Your task to perform on an android device: toggle notification dots Image 0: 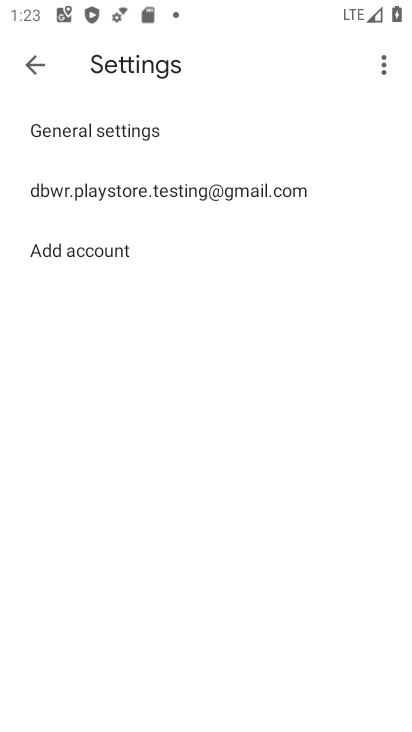
Step 0: press home button
Your task to perform on an android device: toggle notification dots Image 1: 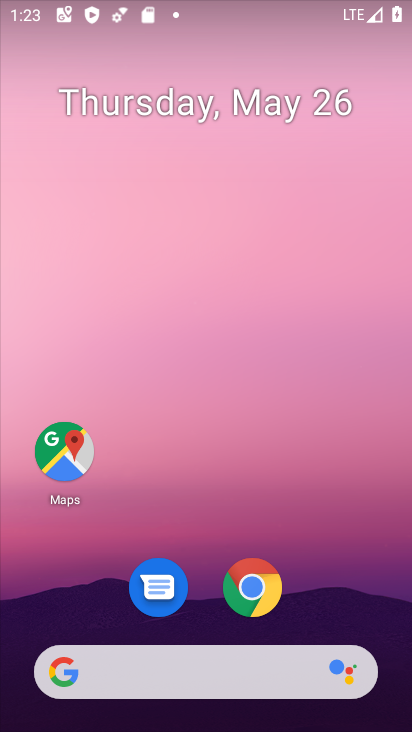
Step 1: drag from (355, 592) to (355, 441)
Your task to perform on an android device: toggle notification dots Image 2: 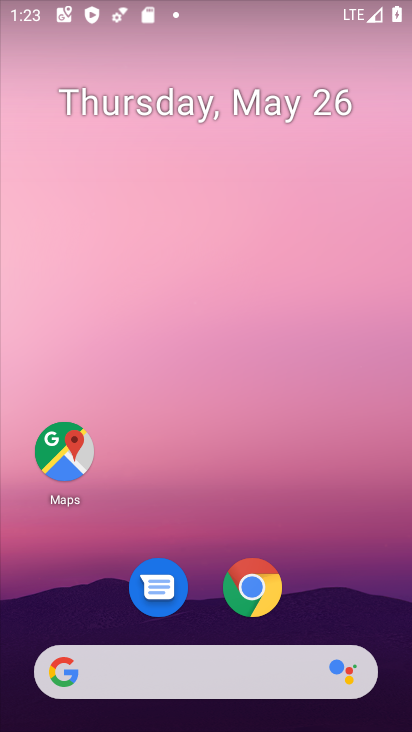
Step 2: drag from (354, 584) to (379, 185)
Your task to perform on an android device: toggle notification dots Image 3: 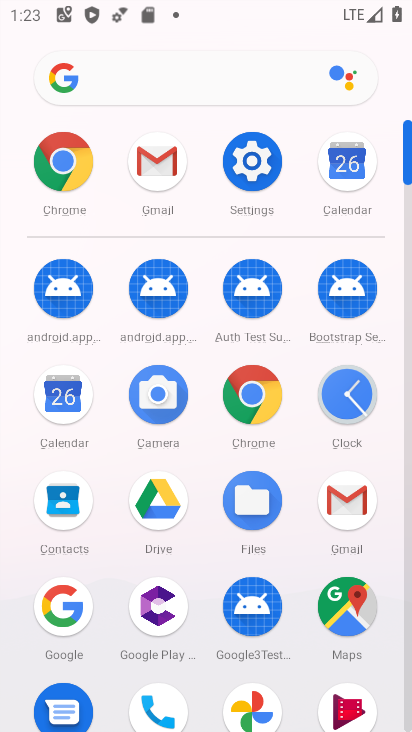
Step 3: click (258, 170)
Your task to perform on an android device: toggle notification dots Image 4: 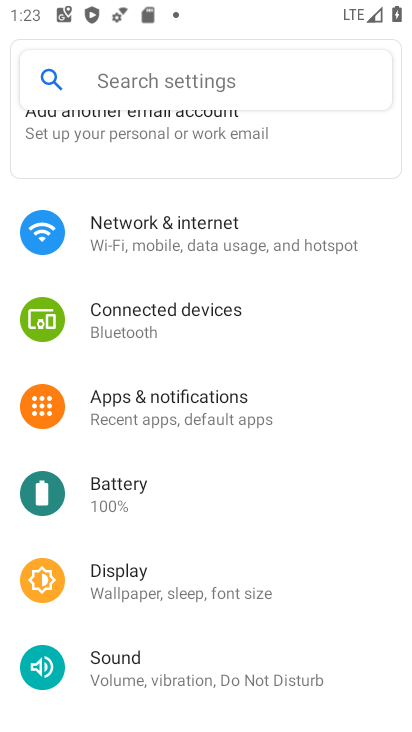
Step 4: drag from (314, 507) to (328, 312)
Your task to perform on an android device: toggle notification dots Image 5: 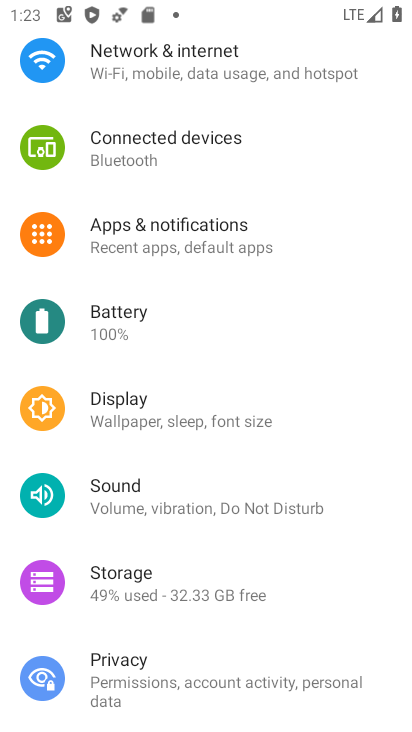
Step 5: drag from (321, 587) to (322, 393)
Your task to perform on an android device: toggle notification dots Image 6: 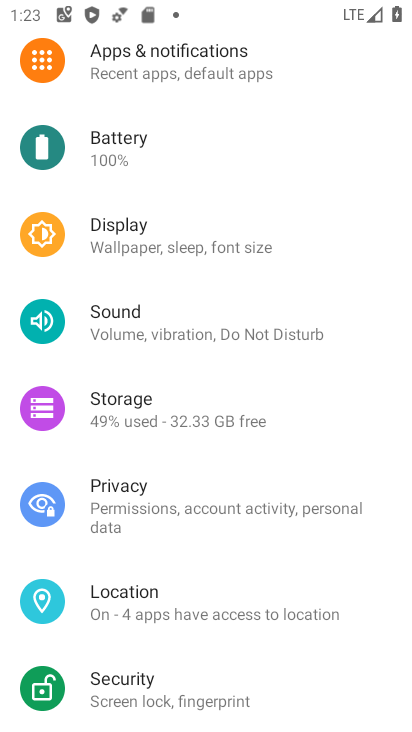
Step 6: drag from (311, 594) to (314, 441)
Your task to perform on an android device: toggle notification dots Image 7: 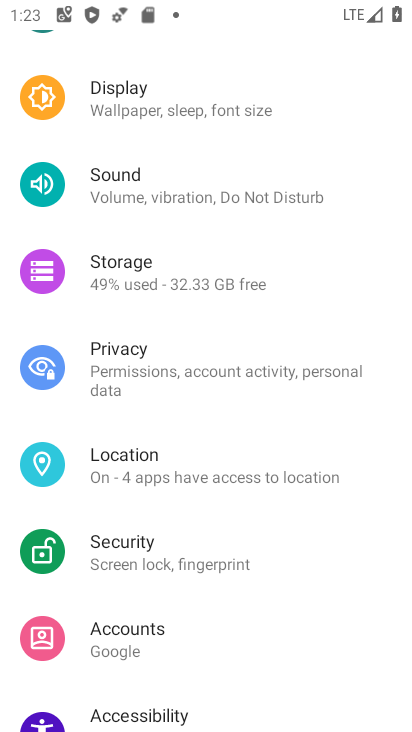
Step 7: drag from (308, 615) to (307, 424)
Your task to perform on an android device: toggle notification dots Image 8: 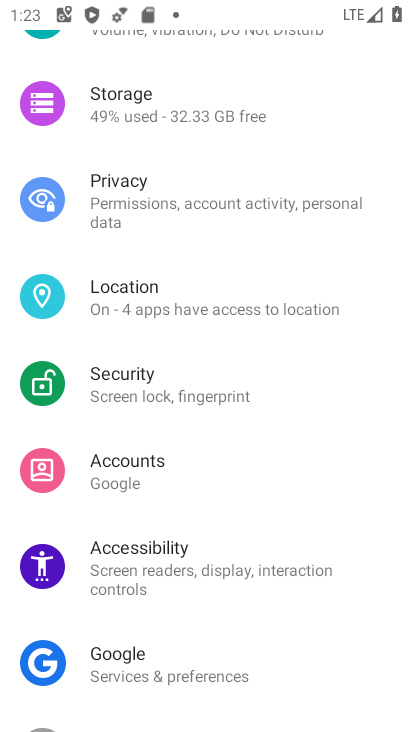
Step 8: drag from (311, 588) to (311, 453)
Your task to perform on an android device: toggle notification dots Image 9: 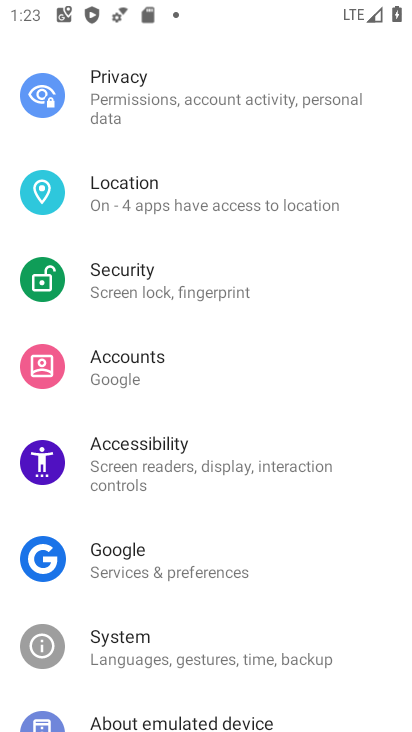
Step 9: drag from (300, 634) to (290, 445)
Your task to perform on an android device: toggle notification dots Image 10: 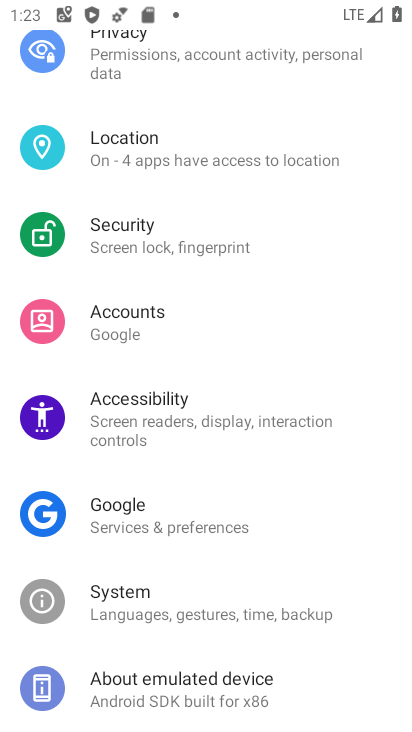
Step 10: drag from (311, 642) to (315, 462)
Your task to perform on an android device: toggle notification dots Image 11: 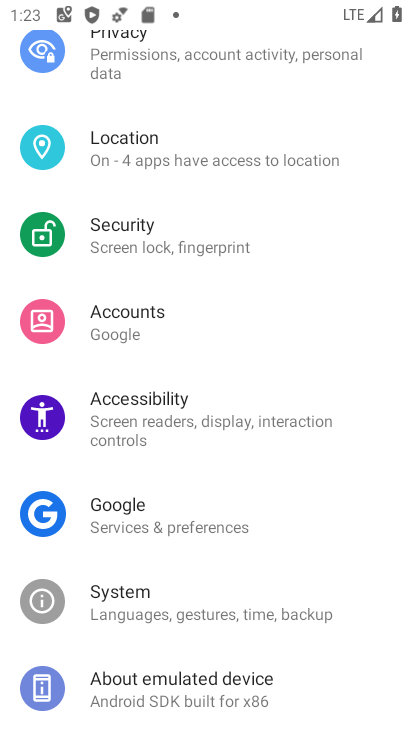
Step 11: drag from (304, 282) to (291, 476)
Your task to perform on an android device: toggle notification dots Image 12: 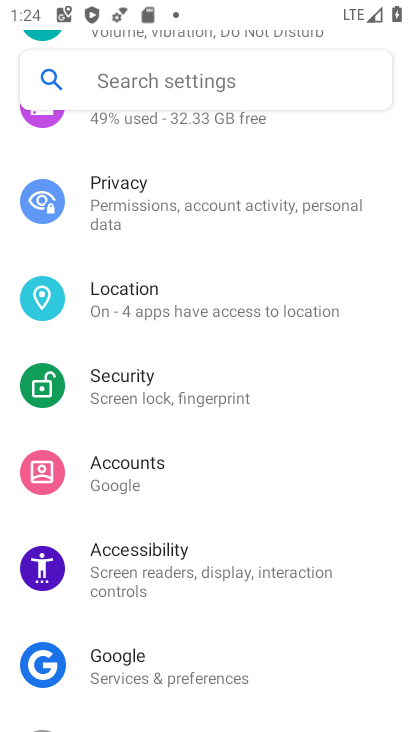
Step 12: drag from (310, 281) to (295, 455)
Your task to perform on an android device: toggle notification dots Image 13: 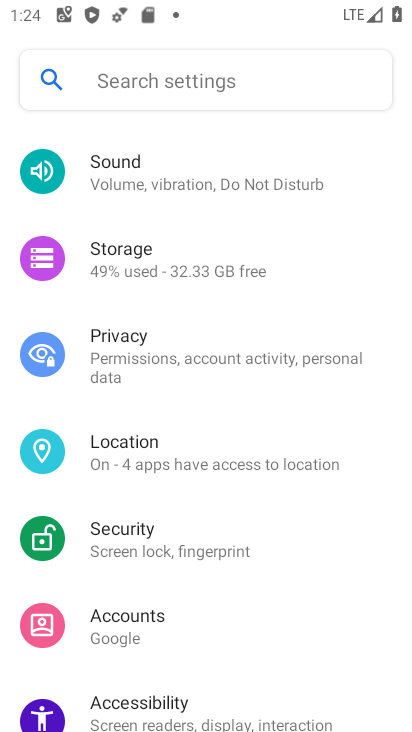
Step 13: drag from (299, 293) to (290, 441)
Your task to perform on an android device: toggle notification dots Image 14: 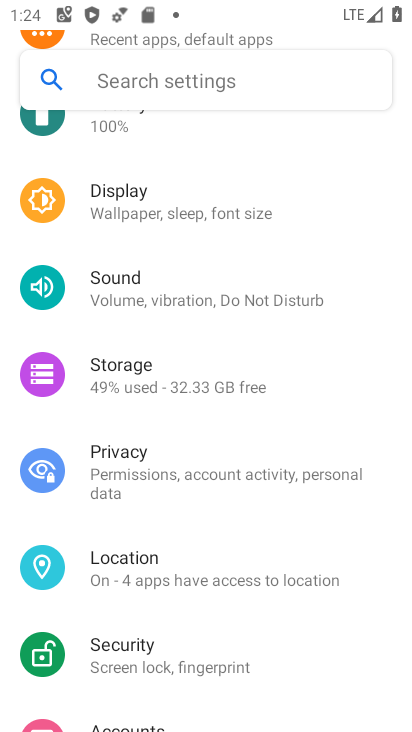
Step 14: drag from (299, 233) to (303, 378)
Your task to perform on an android device: toggle notification dots Image 15: 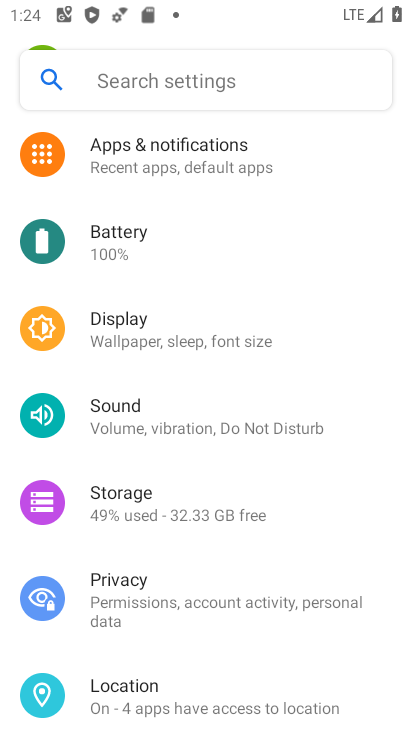
Step 15: drag from (306, 212) to (305, 325)
Your task to perform on an android device: toggle notification dots Image 16: 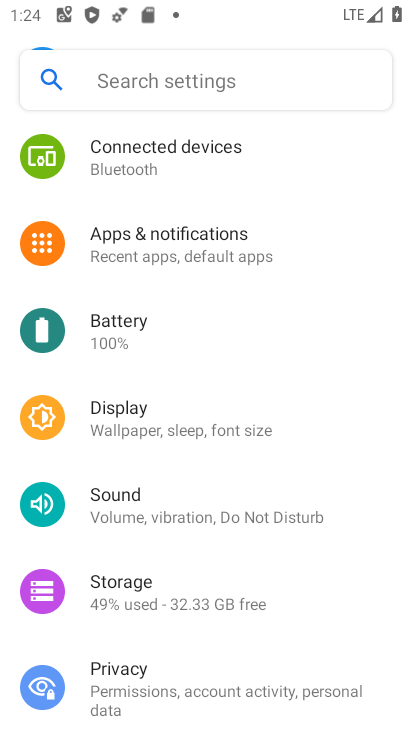
Step 16: drag from (322, 278) to (303, 532)
Your task to perform on an android device: toggle notification dots Image 17: 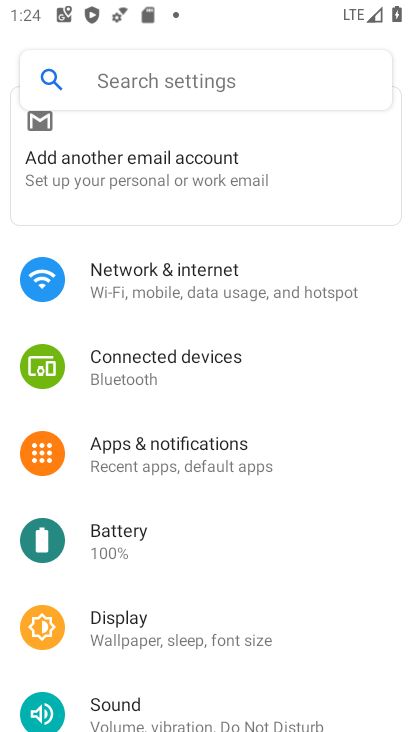
Step 17: drag from (334, 238) to (319, 493)
Your task to perform on an android device: toggle notification dots Image 18: 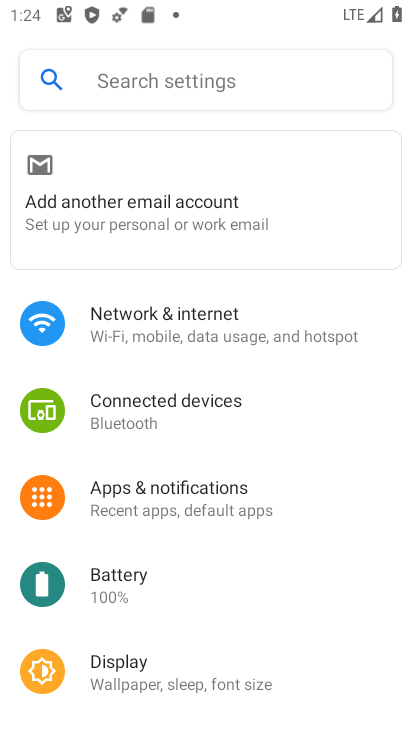
Step 18: drag from (314, 573) to (318, 427)
Your task to perform on an android device: toggle notification dots Image 19: 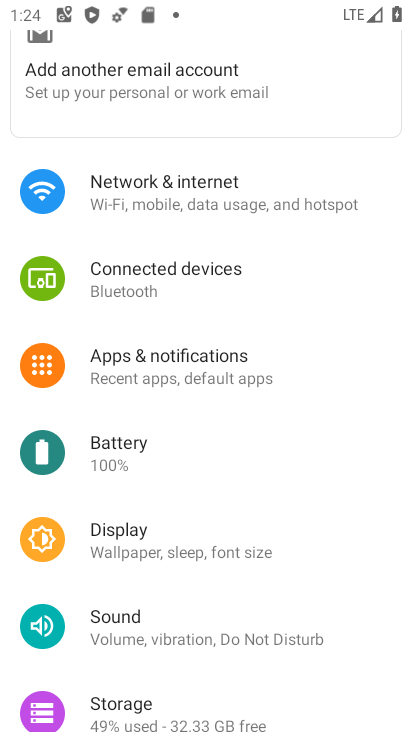
Step 19: drag from (317, 598) to (335, 383)
Your task to perform on an android device: toggle notification dots Image 20: 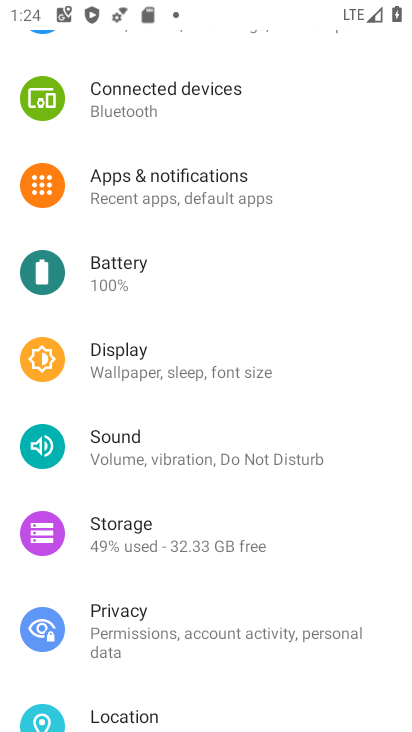
Step 20: drag from (320, 585) to (334, 366)
Your task to perform on an android device: toggle notification dots Image 21: 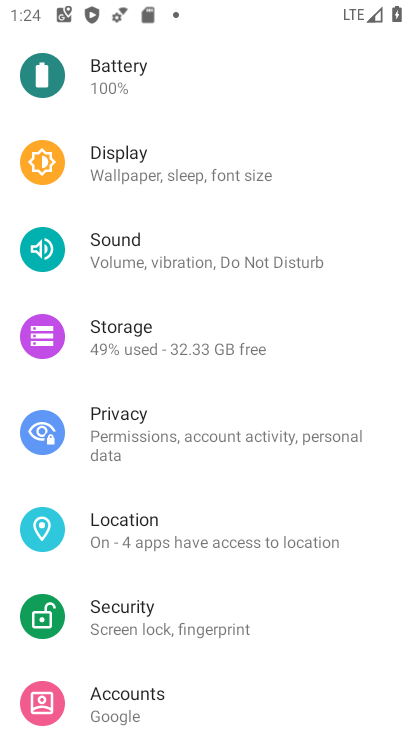
Step 21: drag from (299, 615) to (333, 426)
Your task to perform on an android device: toggle notification dots Image 22: 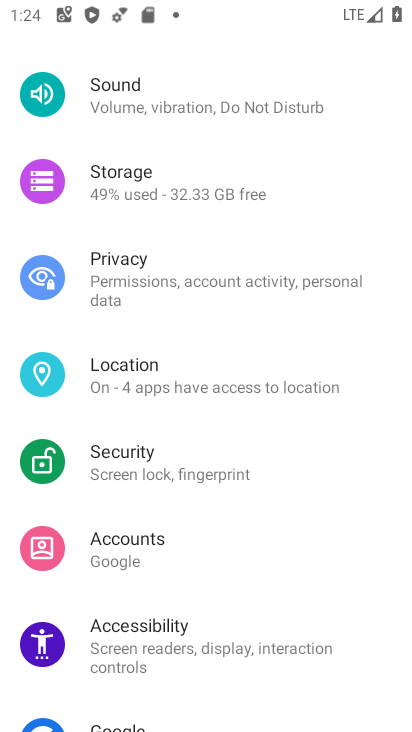
Step 22: drag from (333, 589) to (342, 433)
Your task to perform on an android device: toggle notification dots Image 23: 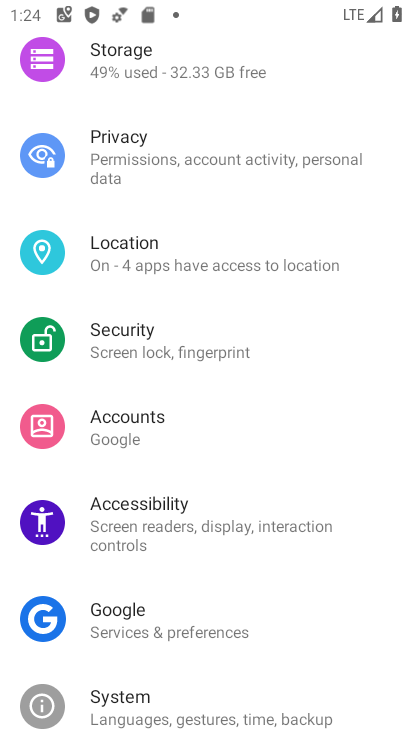
Step 23: drag from (323, 599) to (339, 445)
Your task to perform on an android device: toggle notification dots Image 24: 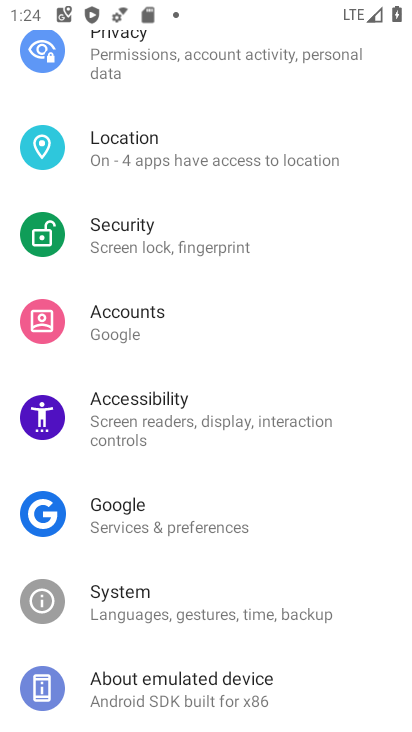
Step 24: drag from (312, 637) to (325, 470)
Your task to perform on an android device: toggle notification dots Image 25: 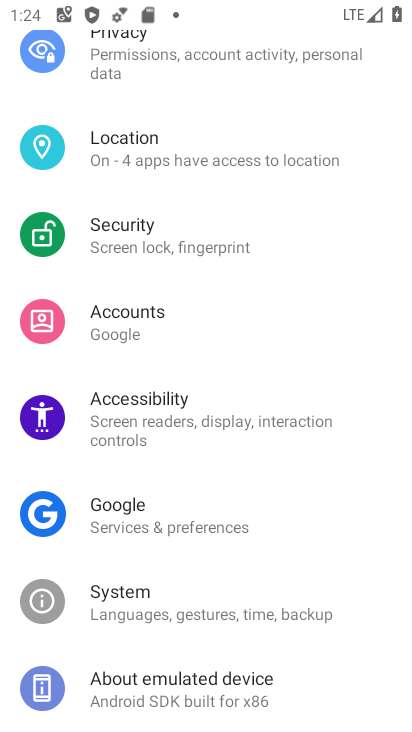
Step 25: drag from (313, 218) to (338, 478)
Your task to perform on an android device: toggle notification dots Image 26: 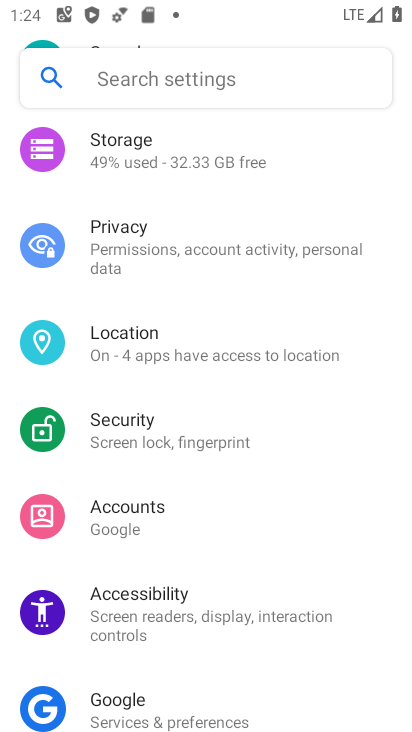
Step 26: drag from (349, 192) to (361, 445)
Your task to perform on an android device: toggle notification dots Image 27: 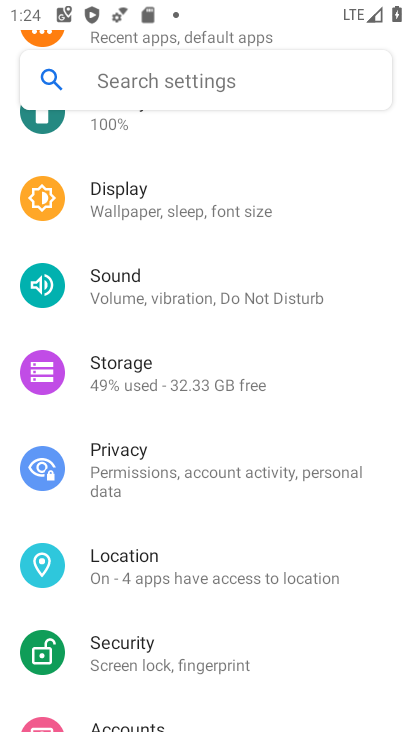
Step 27: drag from (343, 228) to (372, 485)
Your task to perform on an android device: toggle notification dots Image 28: 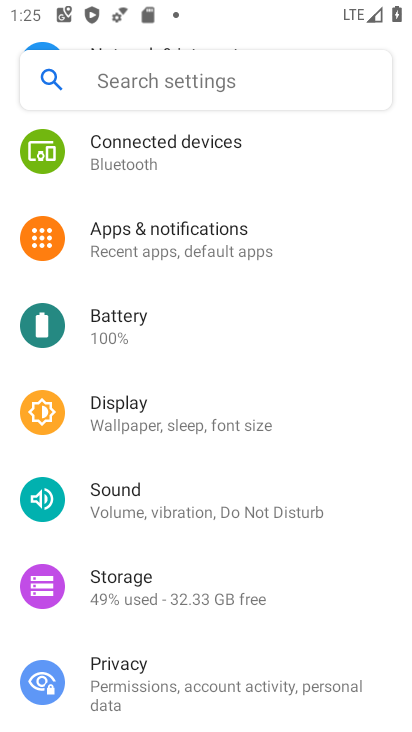
Step 28: drag from (339, 221) to (345, 402)
Your task to perform on an android device: toggle notification dots Image 29: 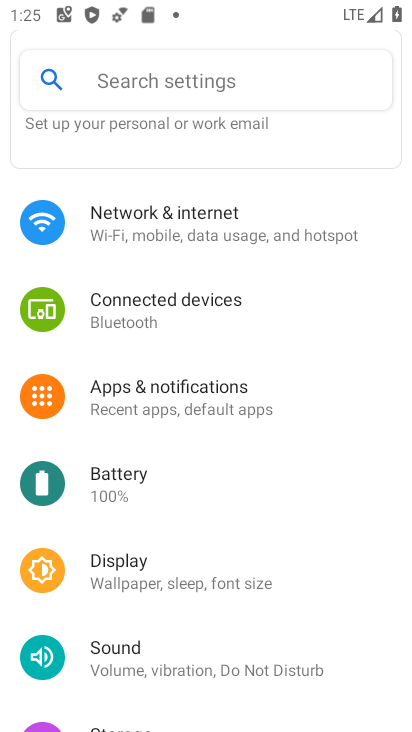
Step 29: click (221, 404)
Your task to perform on an android device: toggle notification dots Image 30: 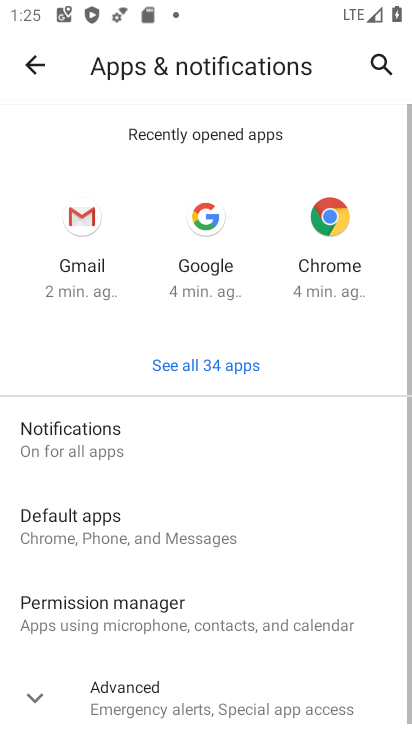
Step 30: drag from (316, 516) to (302, 287)
Your task to perform on an android device: toggle notification dots Image 31: 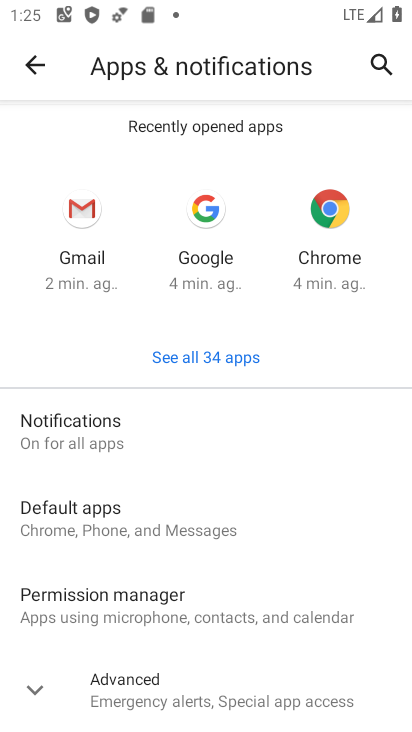
Step 31: click (101, 440)
Your task to perform on an android device: toggle notification dots Image 32: 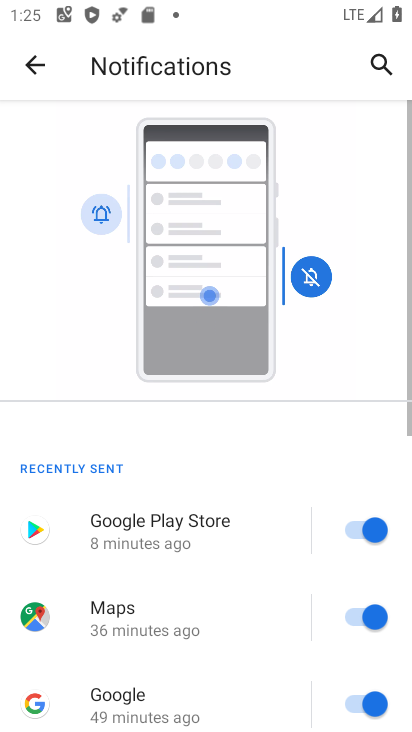
Step 32: drag from (262, 543) to (270, 321)
Your task to perform on an android device: toggle notification dots Image 33: 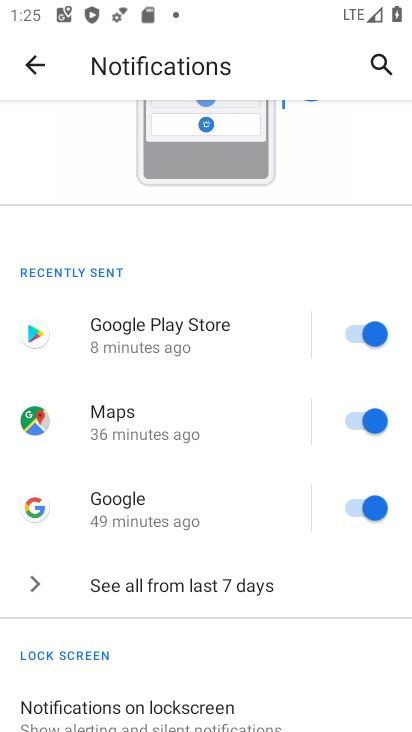
Step 33: drag from (267, 480) to (267, 290)
Your task to perform on an android device: toggle notification dots Image 34: 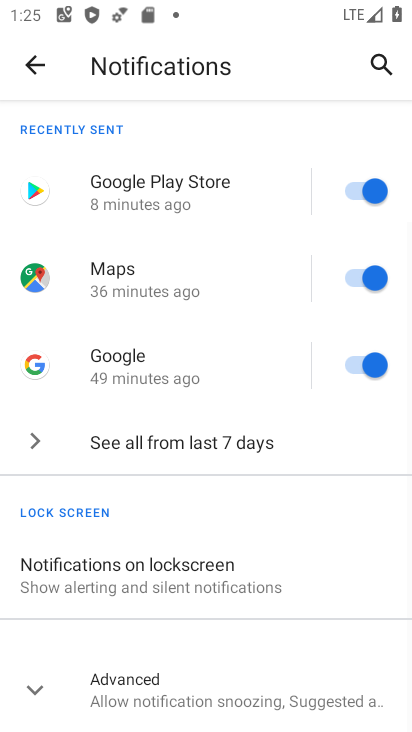
Step 34: drag from (305, 570) to (290, 366)
Your task to perform on an android device: toggle notification dots Image 35: 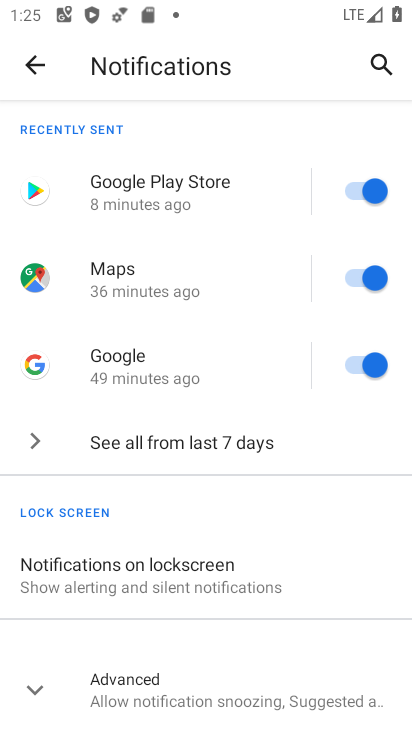
Step 35: click (205, 700)
Your task to perform on an android device: toggle notification dots Image 36: 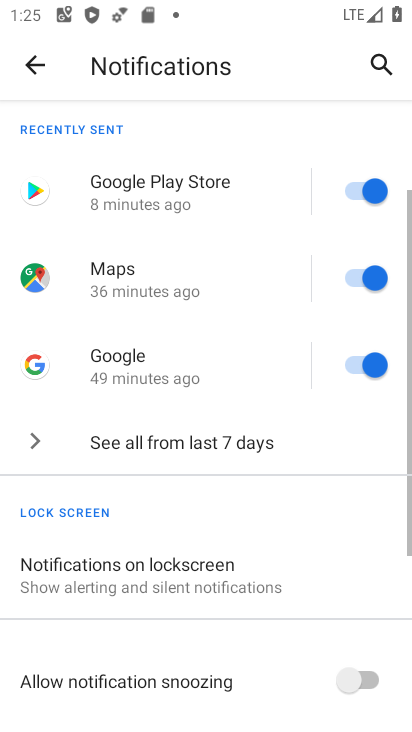
Step 36: drag from (275, 643) to (278, 393)
Your task to perform on an android device: toggle notification dots Image 37: 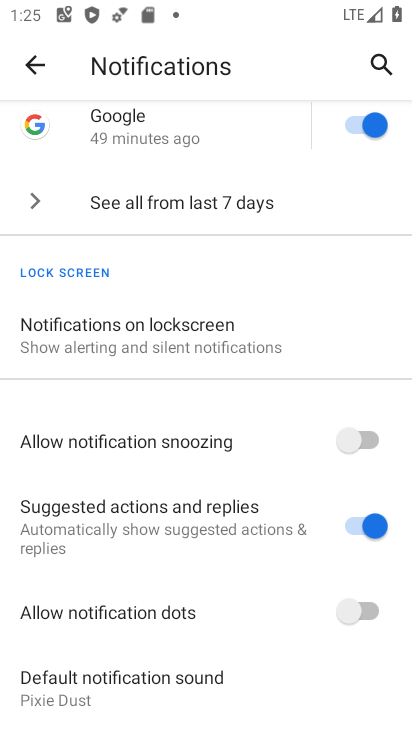
Step 37: click (346, 615)
Your task to perform on an android device: toggle notification dots Image 38: 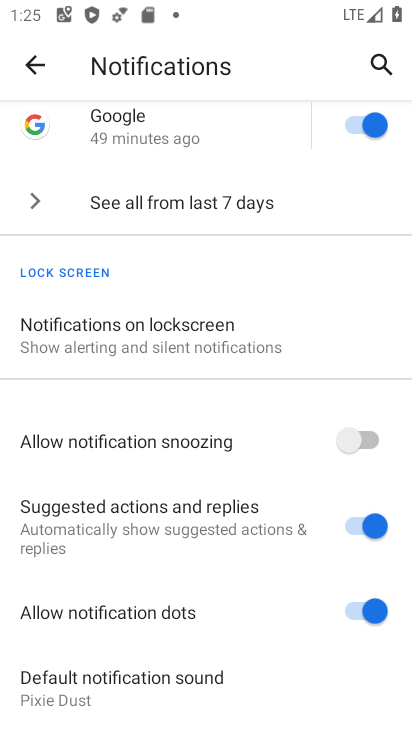
Step 38: task complete